Your task to perform on an android device: open a bookmark in the chrome app Image 0: 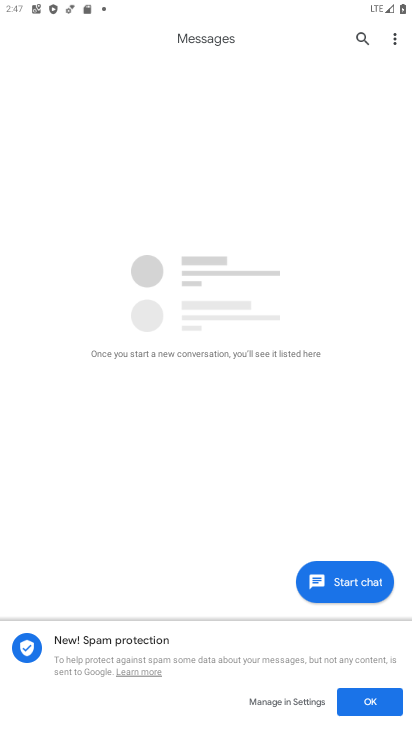
Step 0: press home button
Your task to perform on an android device: open a bookmark in the chrome app Image 1: 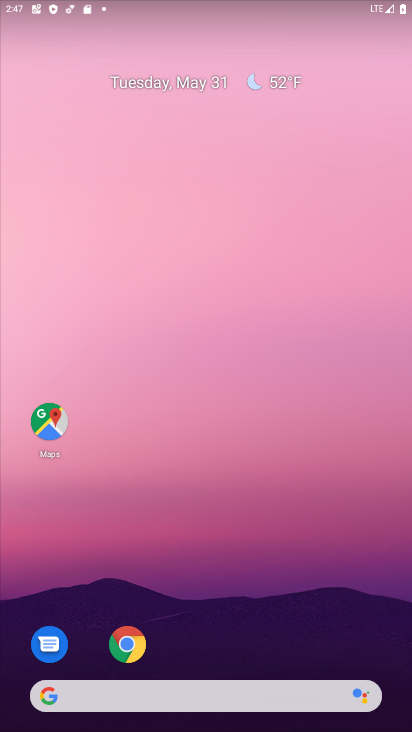
Step 1: click (135, 645)
Your task to perform on an android device: open a bookmark in the chrome app Image 2: 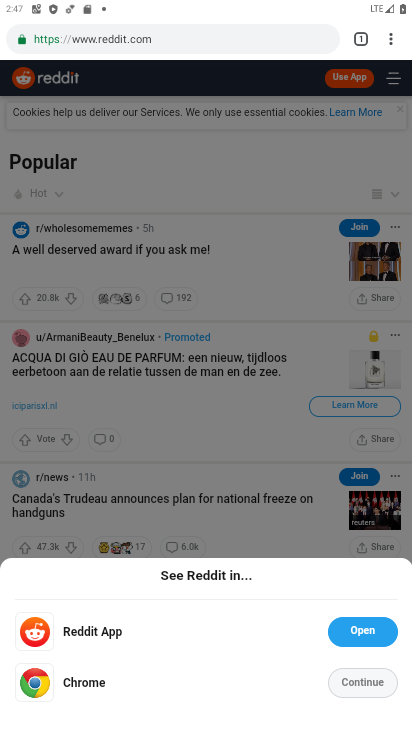
Step 2: click (388, 33)
Your task to perform on an android device: open a bookmark in the chrome app Image 3: 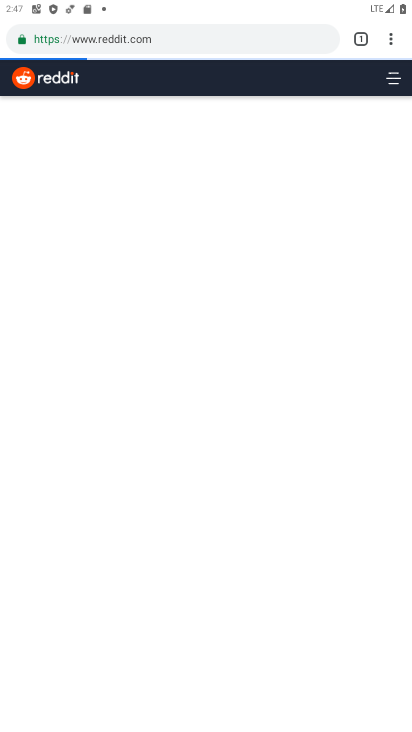
Step 3: click (388, 33)
Your task to perform on an android device: open a bookmark in the chrome app Image 4: 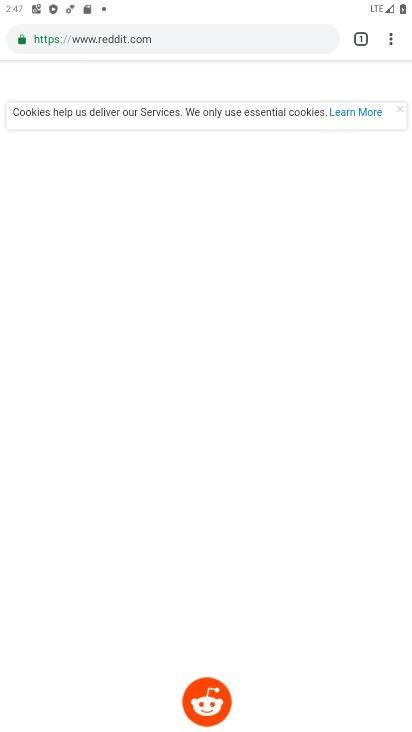
Step 4: task complete